Your task to perform on an android device: Open my contact list Image 0: 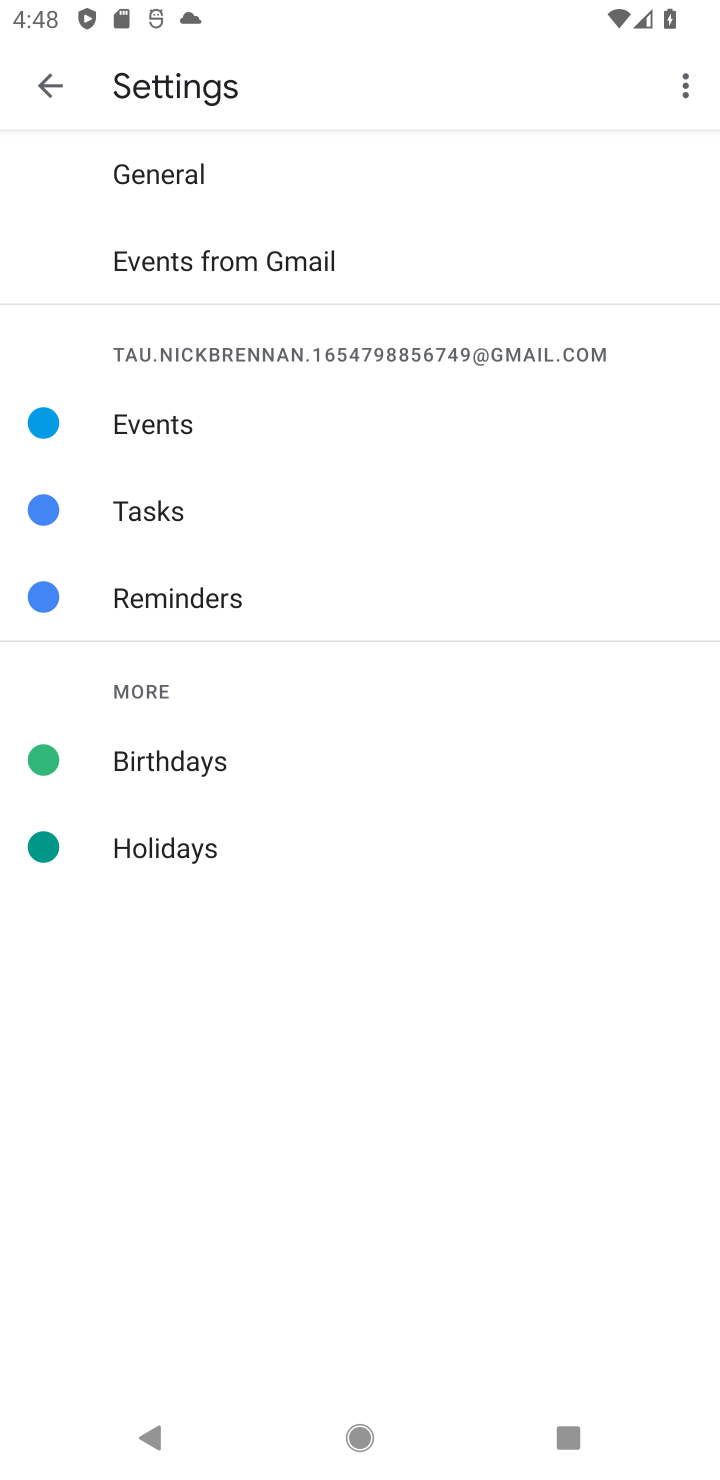
Step 0: drag from (382, 813) to (474, 373)
Your task to perform on an android device: Open my contact list Image 1: 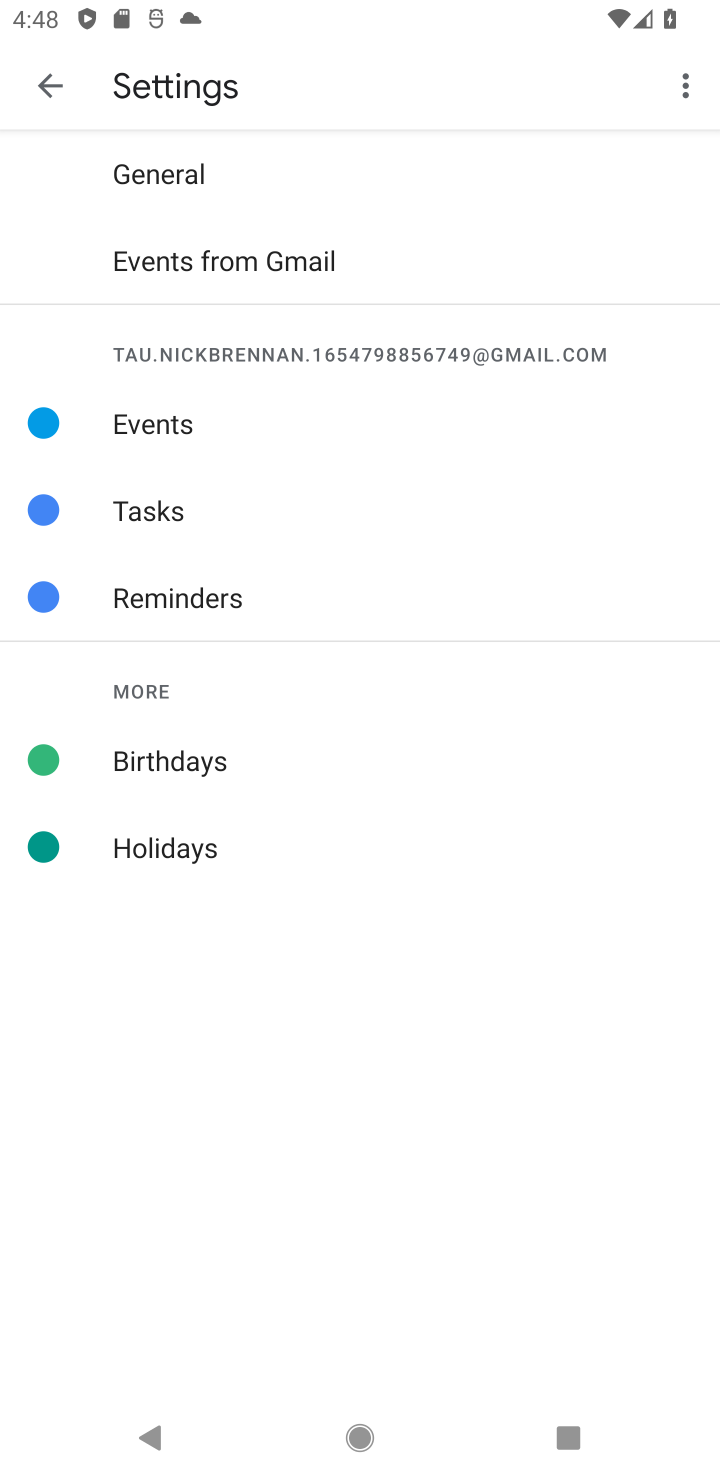
Step 1: press home button
Your task to perform on an android device: Open my contact list Image 2: 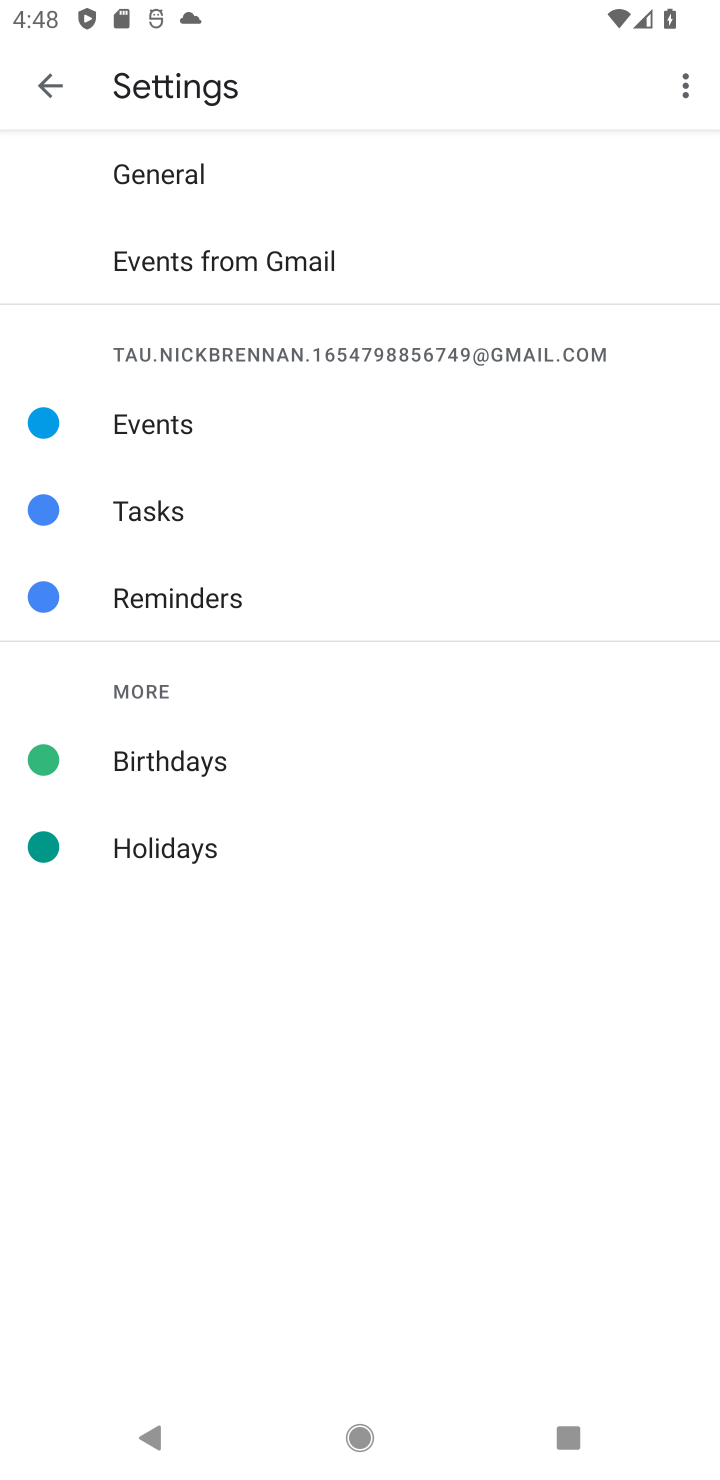
Step 2: drag from (578, 1119) to (501, 17)
Your task to perform on an android device: Open my contact list Image 3: 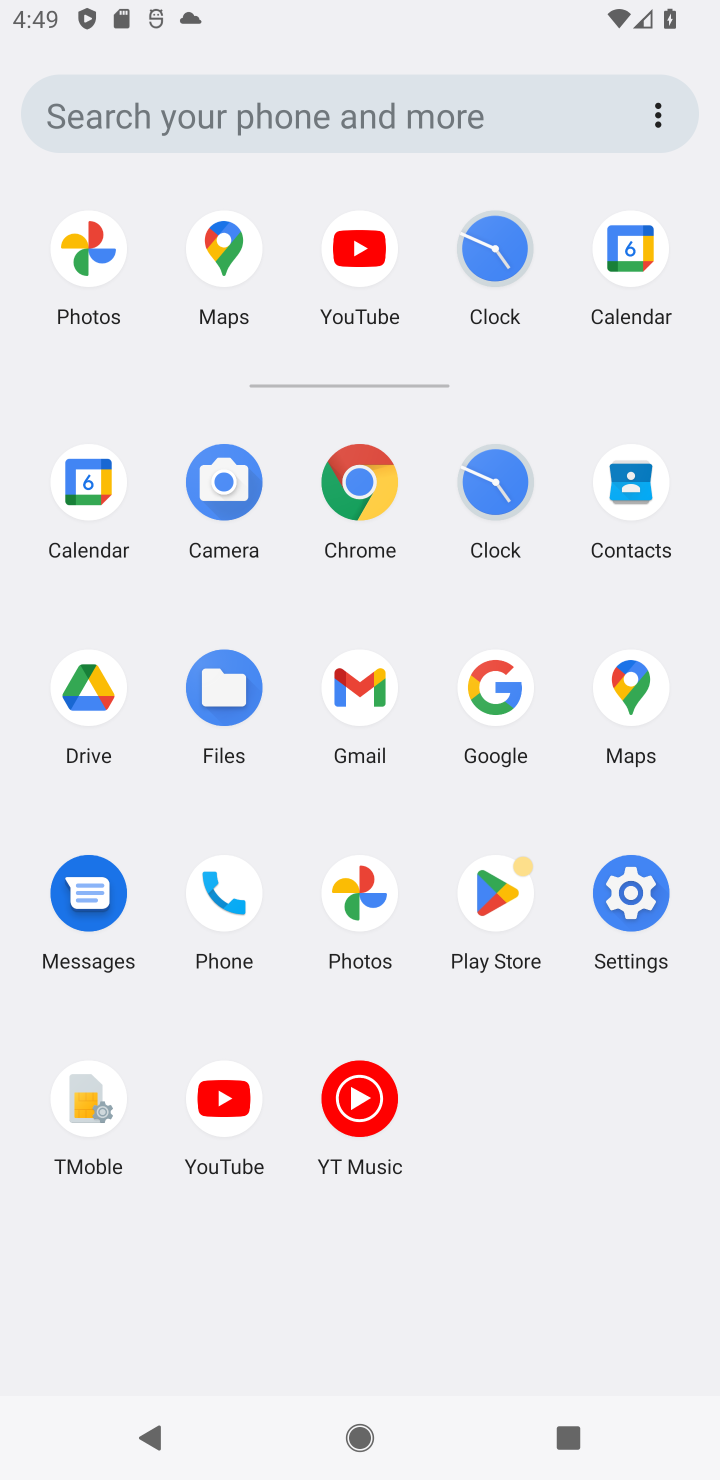
Step 3: click (613, 472)
Your task to perform on an android device: Open my contact list Image 4: 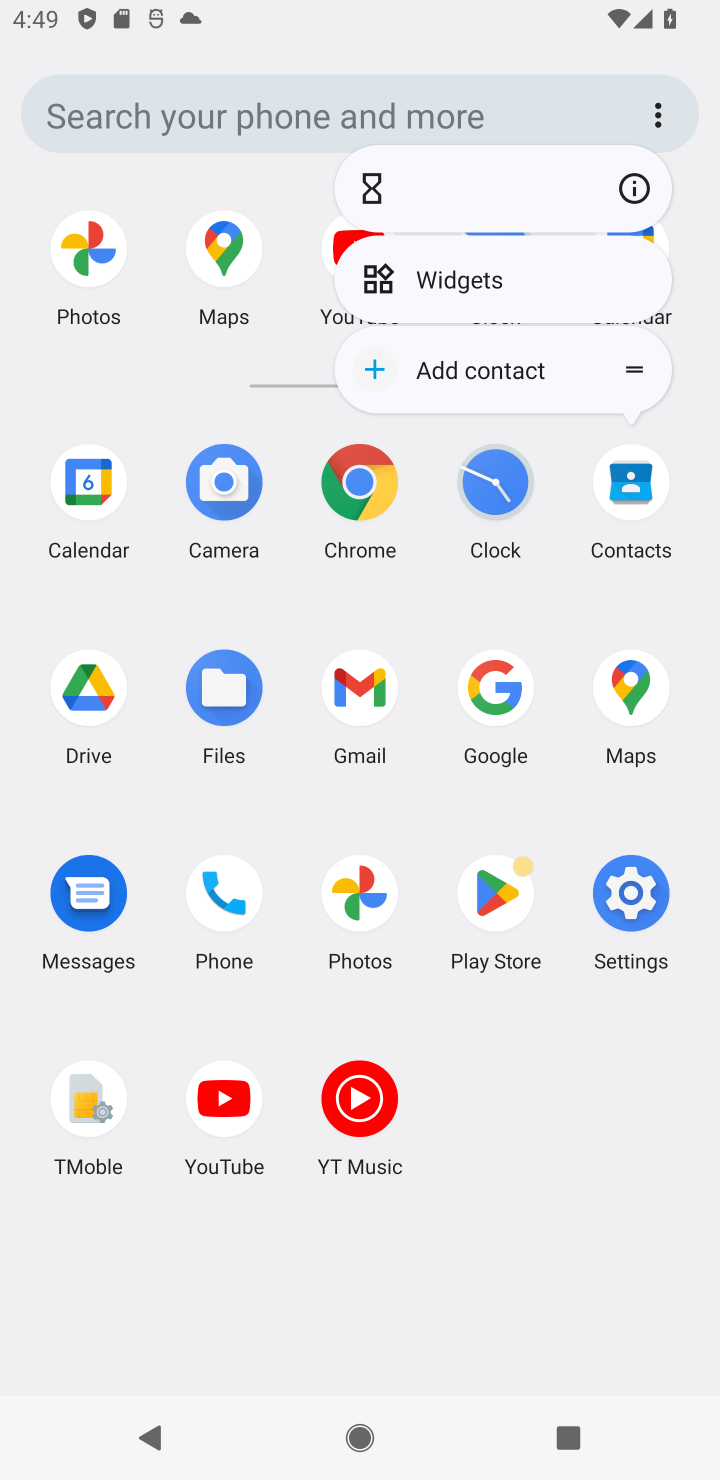
Step 4: click (613, 188)
Your task to perform on an android device: Open my contact list Image 5: 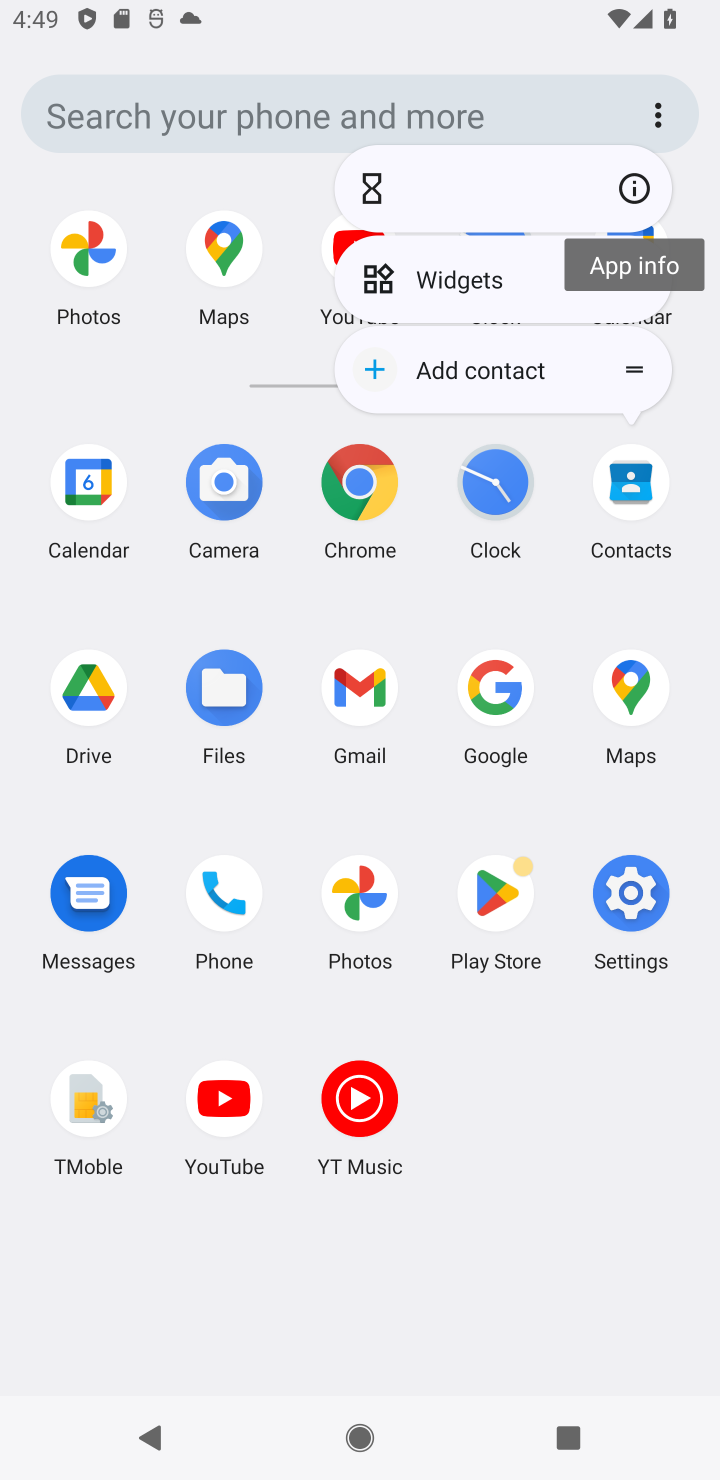
Step 5: click (635, 471)
Your task to perform on an android device: Open my contact list Image 6: 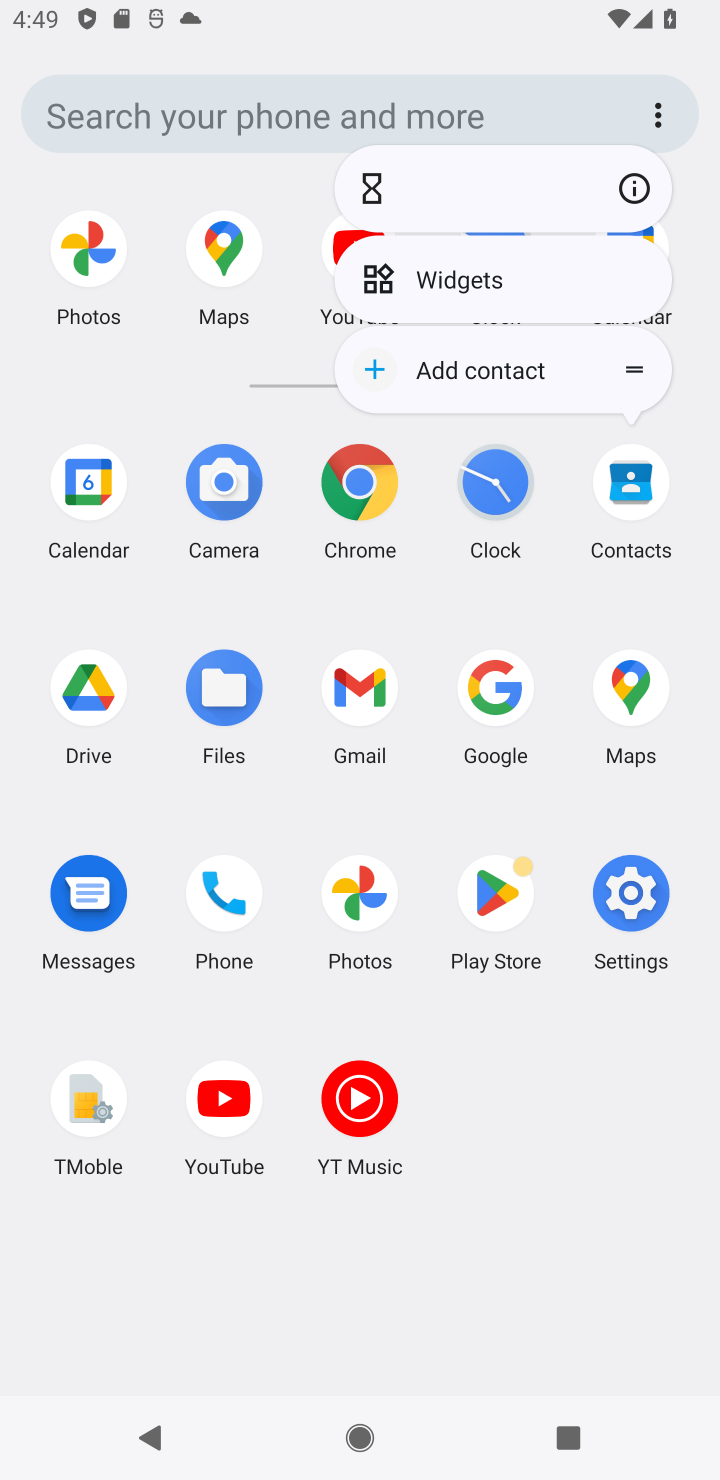
Step 6: click (598, 494)
Your task to perform on an android device: Open my contact list Image 7: 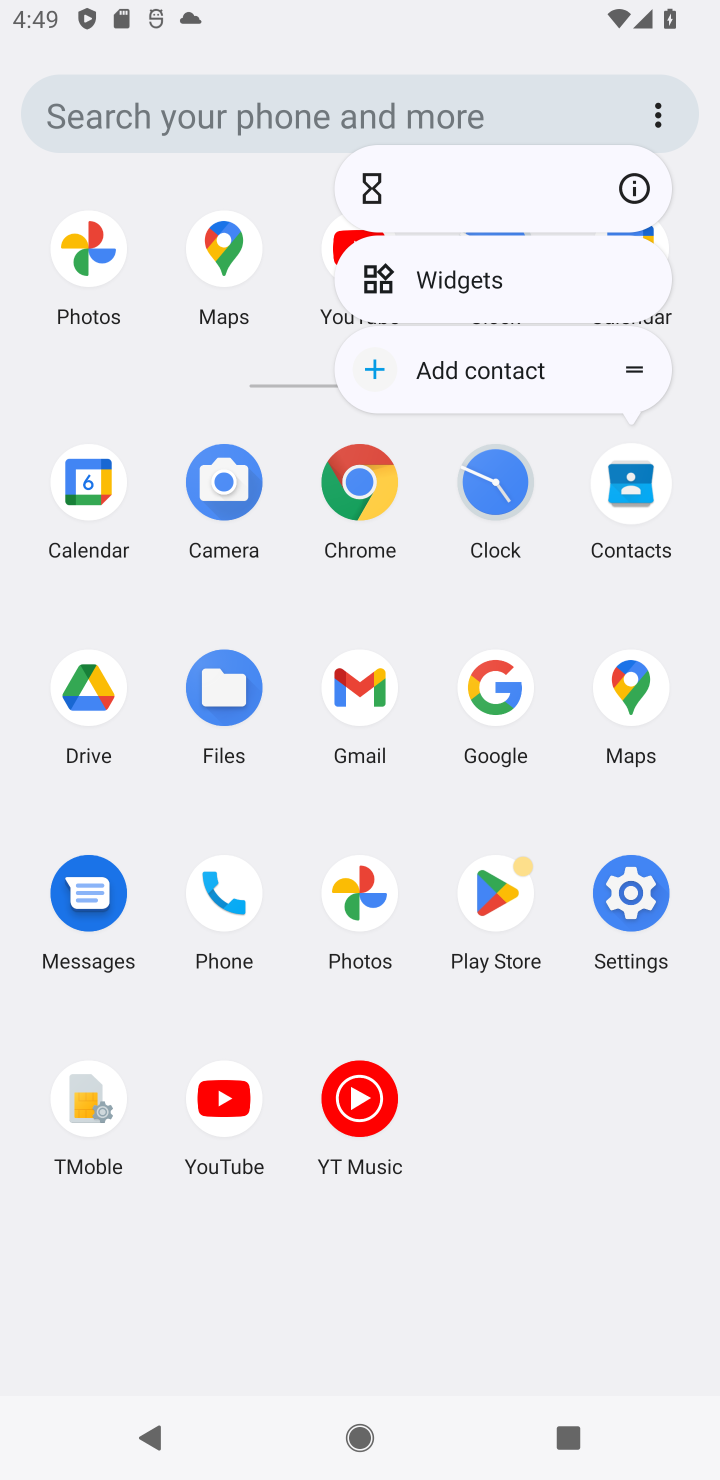
Step 7: click (598, 497)
Your task to perform on an android device: Open my contact list Image 8: 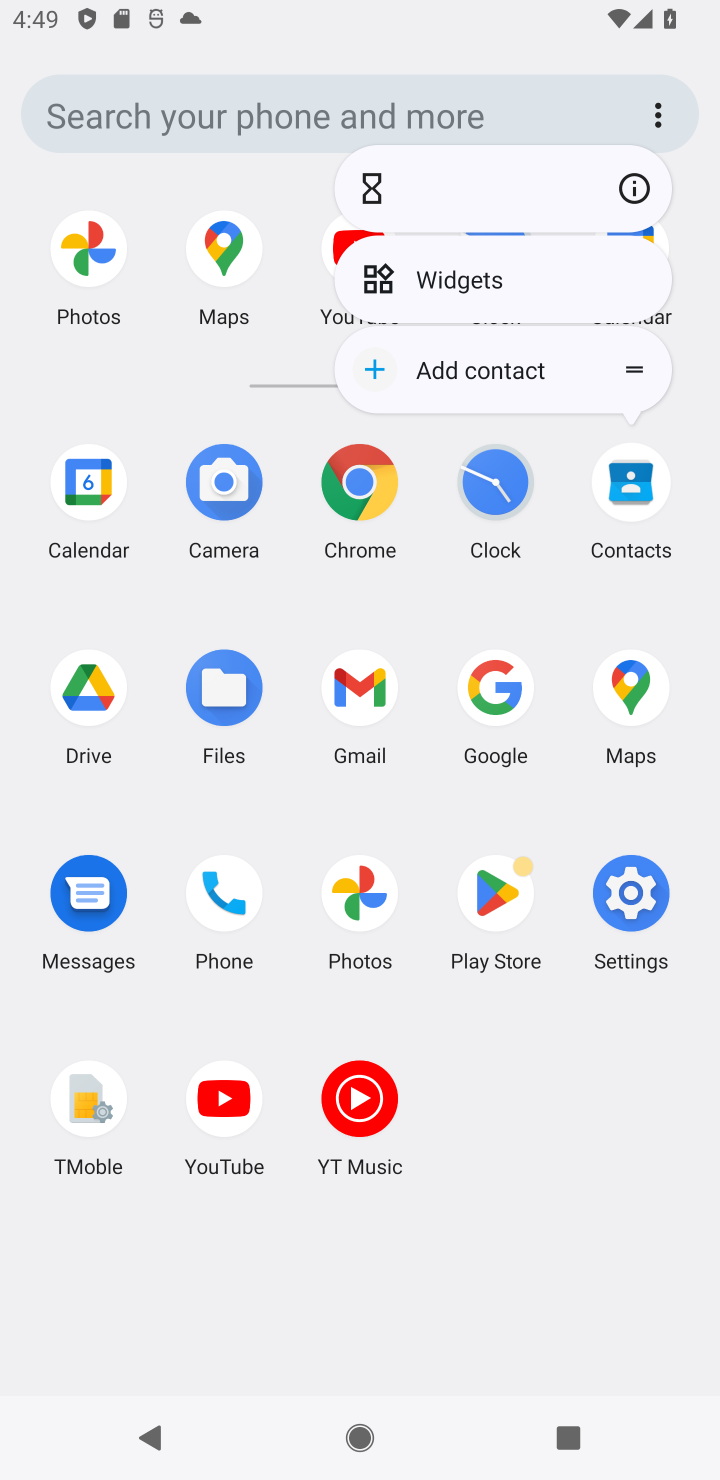
Step 8: click (598, 497)
Your task to perform on an android device: Open my contact list Image 9: 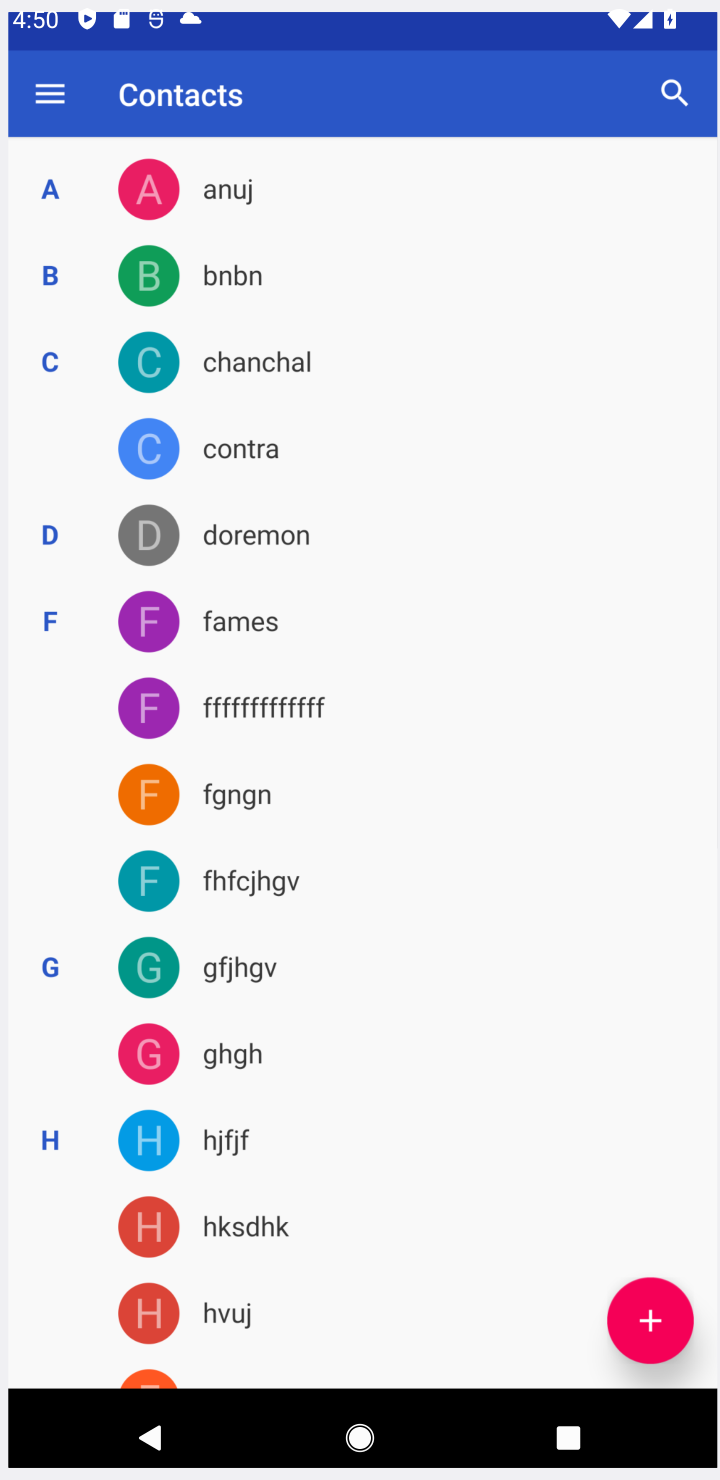
Step 9: click (619, 470)
Your task to perform on an android device: Open my contact list Image 10: 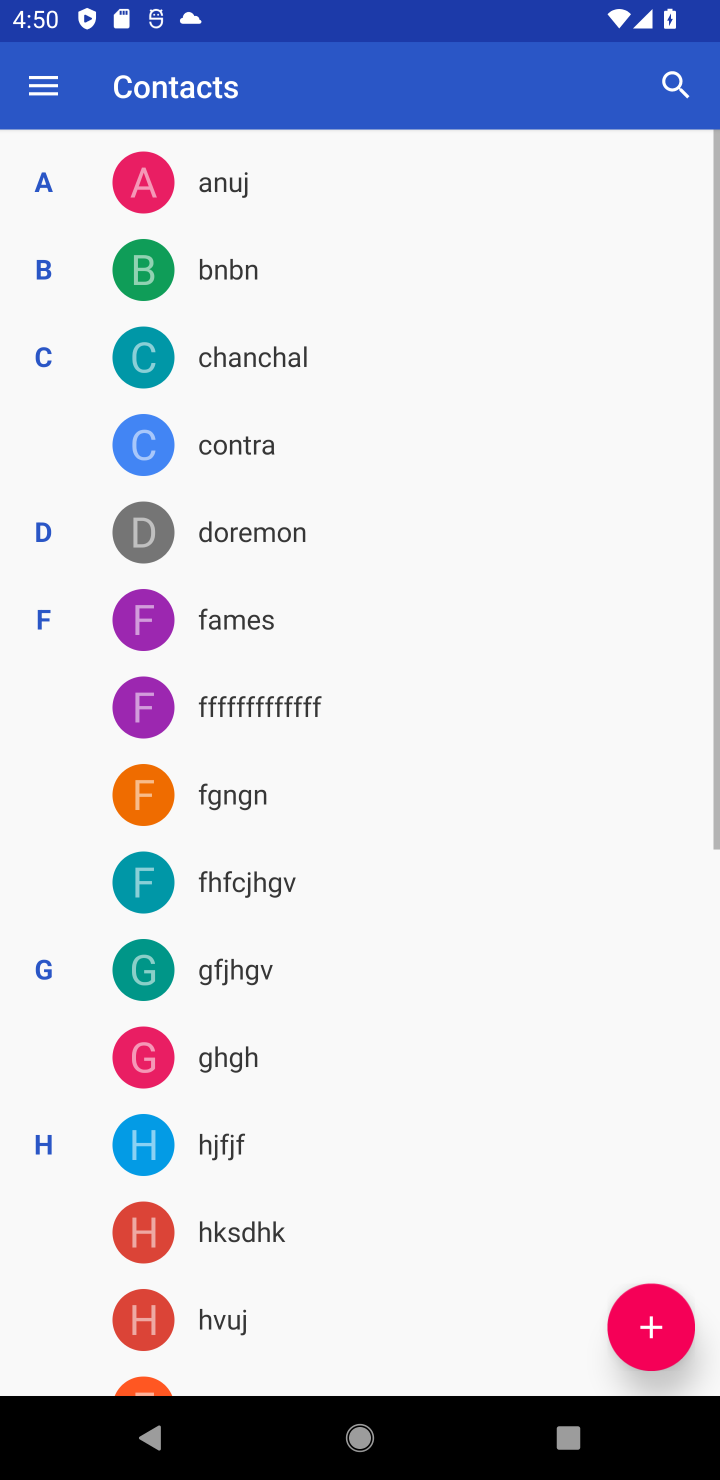
Step 10: task complete